Your task to perform on an android device: open wifi settings Image 0: 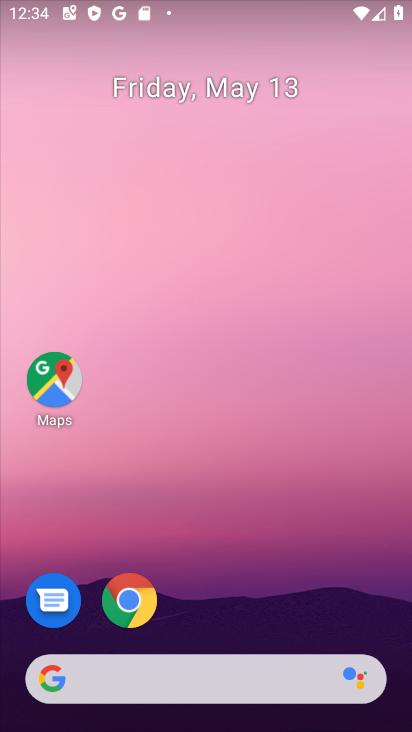
Step 0: drag from (248, 614) to (161, 80)
Your task to perform on an android device: open wifi settings Image 1: 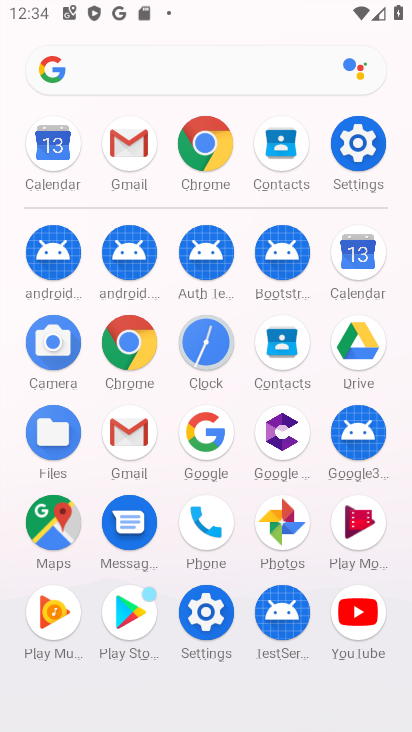
Step 1: click (367, 133)
Your task to perform on an android device: open wifi settings Image 2: 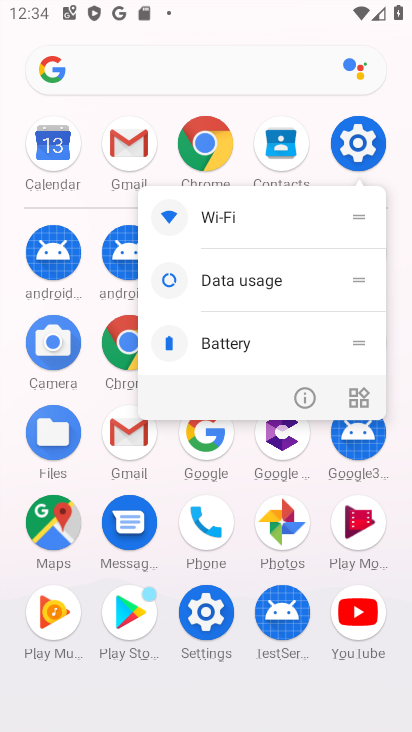
Step 2: click (316, 385)
Your task to perform on an android device: open wifi settings Image 3: 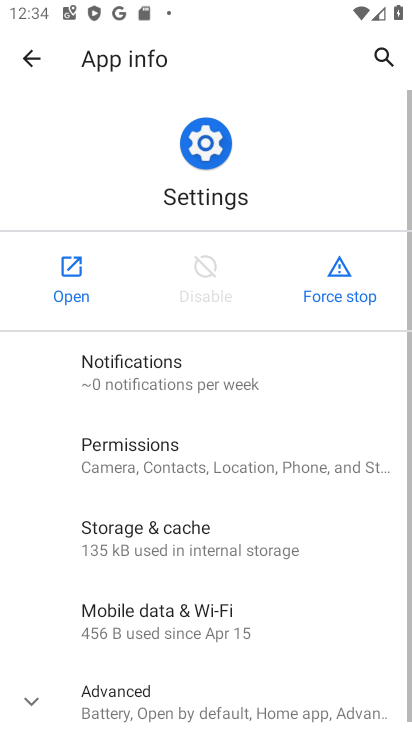
Step 3: click (85, 265)
Your task to perform on an android device: open wifi settings Image 4: 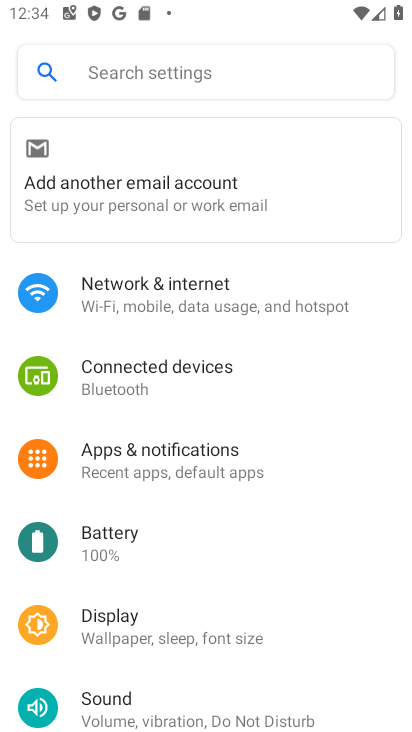
Step 4: click (148, 283)
Your task to perform on an android device: open wifi settings Image 5: 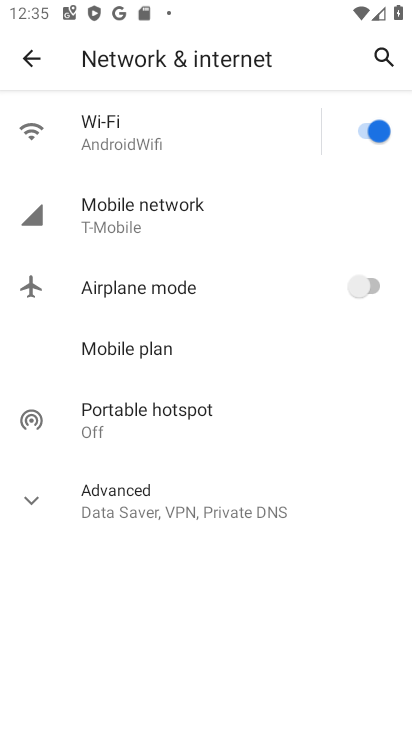
Step 5: click (196, 97)
Your task to perform on an android device: open wifi settings Image 6: 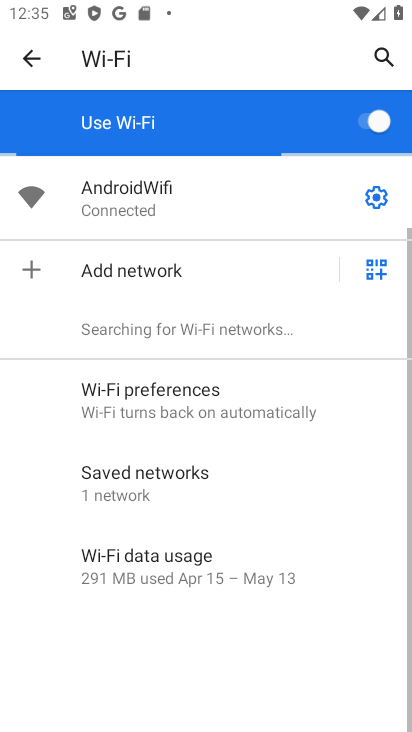
Step 6: drag from (310, 493) to (235, 142)
Your task to perform on an android device: open wifi settings Image 7: 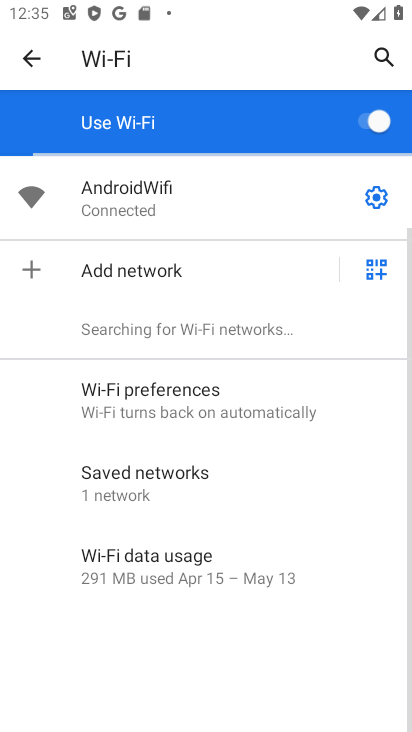
Step 7: click (375, 190)
Your task to perform on an android device: open wifi settings Image 8: 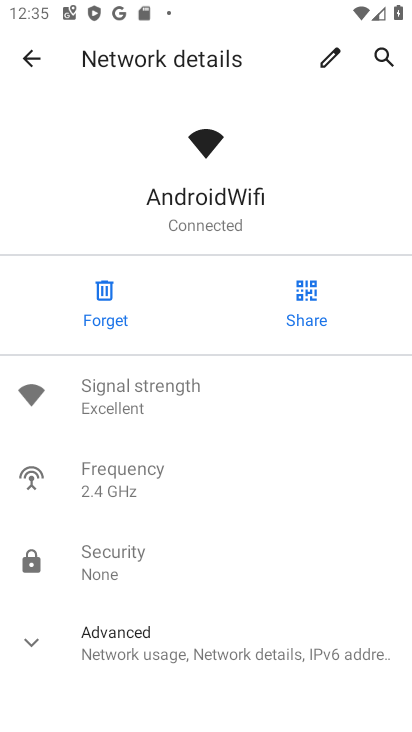
Step 8: task complete